Your task to perform on an android device: Do I have any events this weekend? Image 0: 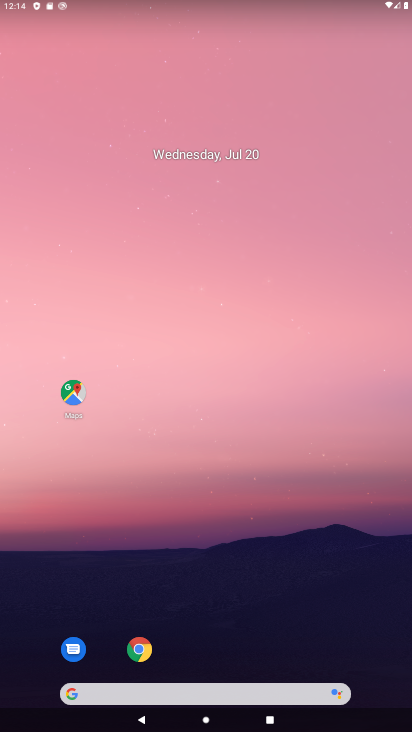
Step 0: drag from (304, 704) to (220, 178)
Your task to perform on an android device: Do I have any events this weekend? Image 1: 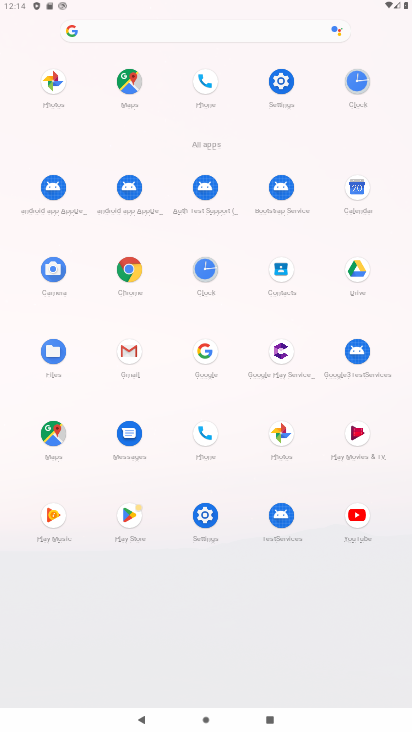
Step 1: click (361, 197)
Your task to perform on an android device: Do I have any events this weekend? Image 2: 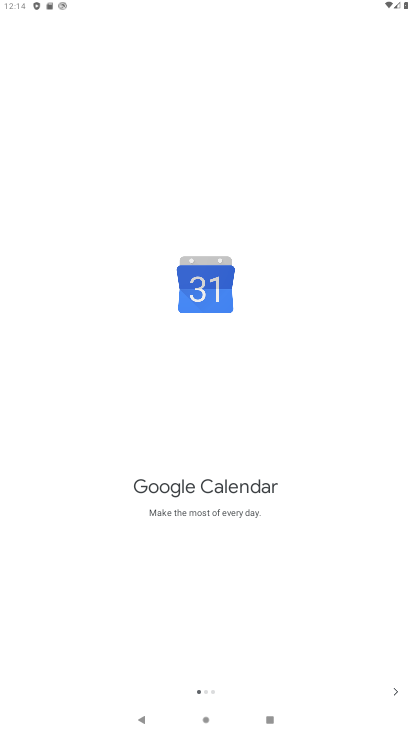
Step 2: click (391, 695)
Your task to perform on an android device: Do I have any events this weekend? Image 3: 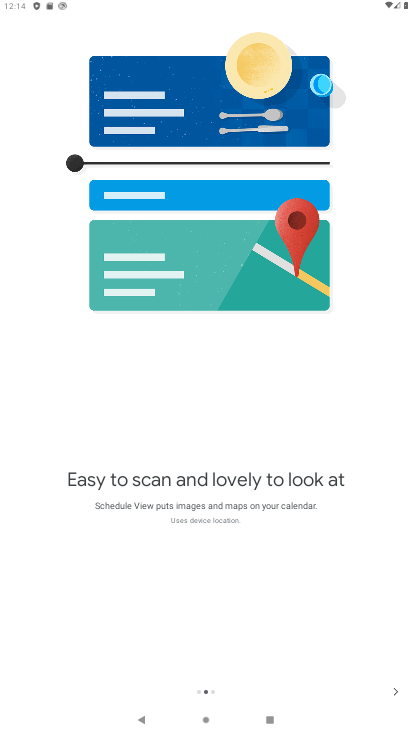
Step 3: click (391, 695)
Your task to perform on an android device: Do I have any events this weekend? Image 4: 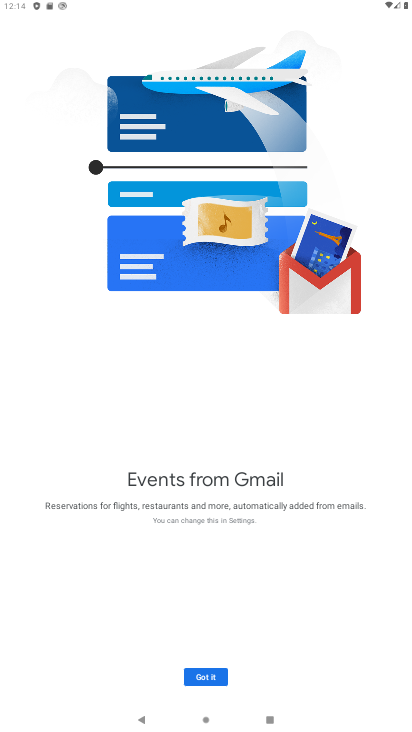
Step 4: click (214, 674)
Your task to perform on an android device: Do I have any events this weekend? Image 5: 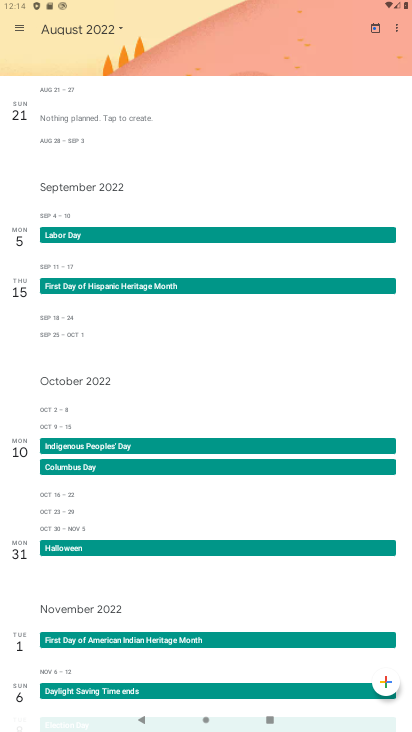
Step 5: task complete